Your task to perform on an android device: turn off notifications in google photos Image 0: 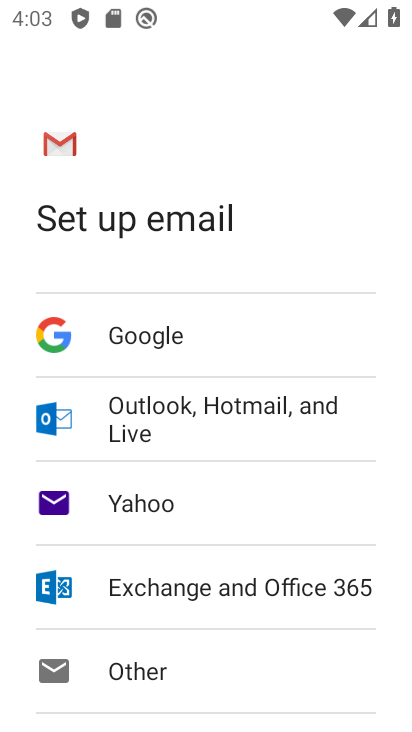
Step 0: press home button
Your task to perform on an android device: turn off notifications in google photos Image 1: 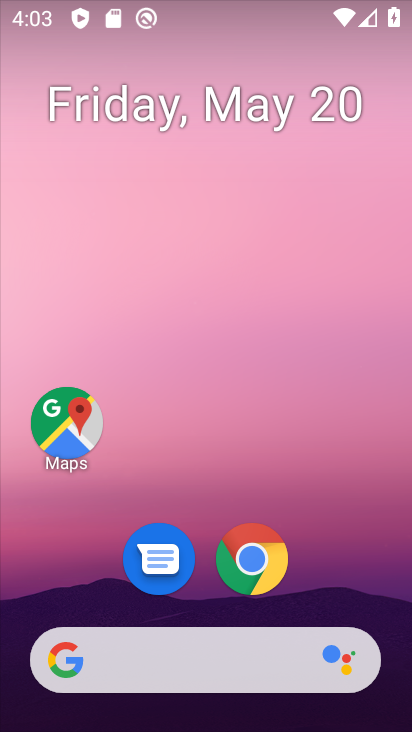
Step 1: drag from (120, 632) to (183, 148)
Your task to perform on an android device: turn off notifications in google photos Image 2: 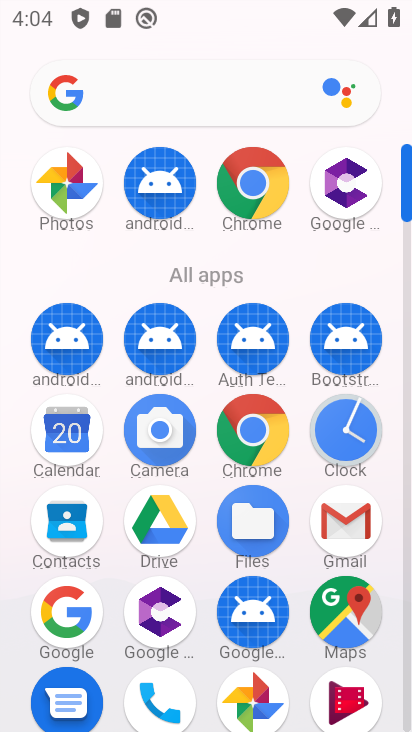
Step 2: click (259, 704)
Your task to perform on an android device: turn off notifications in google photos Image 3: 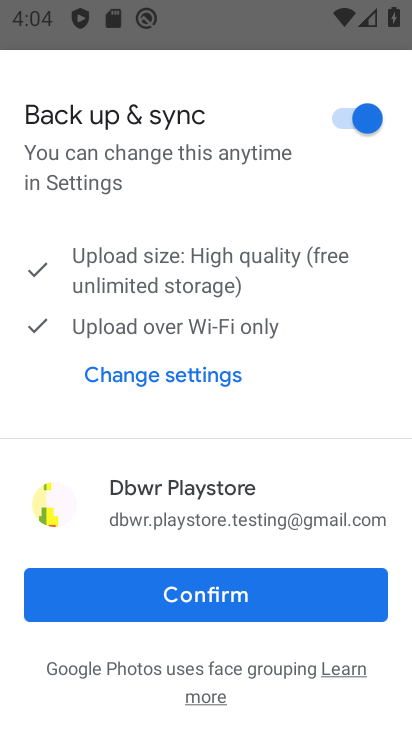
Step 3: click (228, 597)
Your task to perform on an android device: turn off notifications in google photos Image 4: 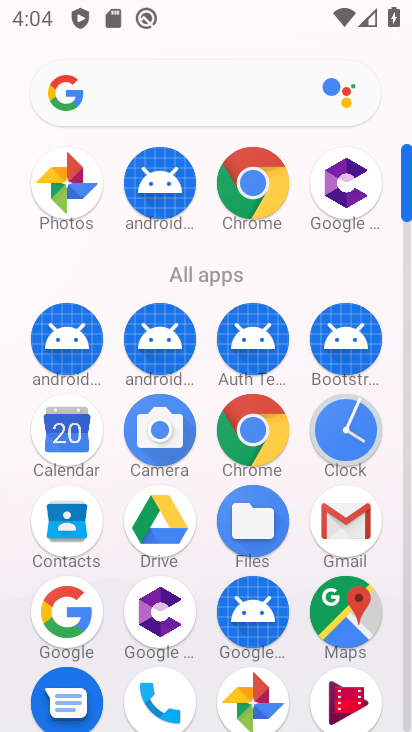
Step 4: click (68, 187)
Your task to perform on an android device: turn off notifications in google photos Image 5: 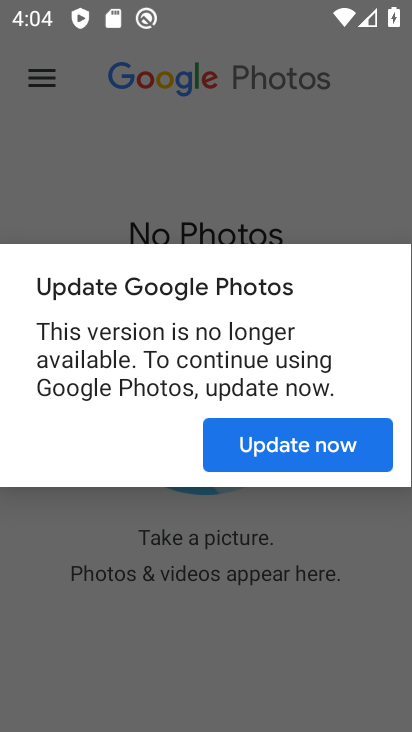
Step 5: click (292, 452)
Your task to perform on an android device: turn off notifications in google photos Image 6: 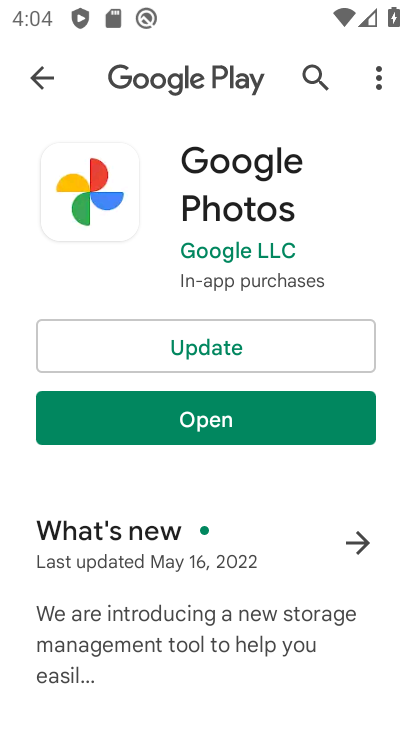
Step 6: press home button
Your task to perform on an android device: turn off notifications in google photos Image 7: 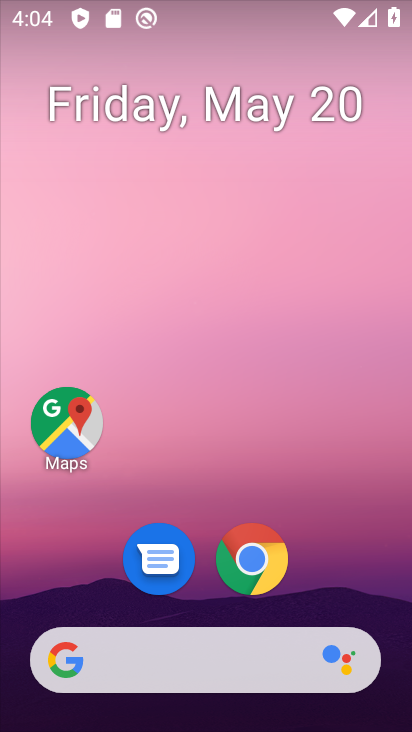
Step 7: drag from (193, 615) to (128, 241)
Your task to perform on an android device: turn off notifications in google photos Image 8: 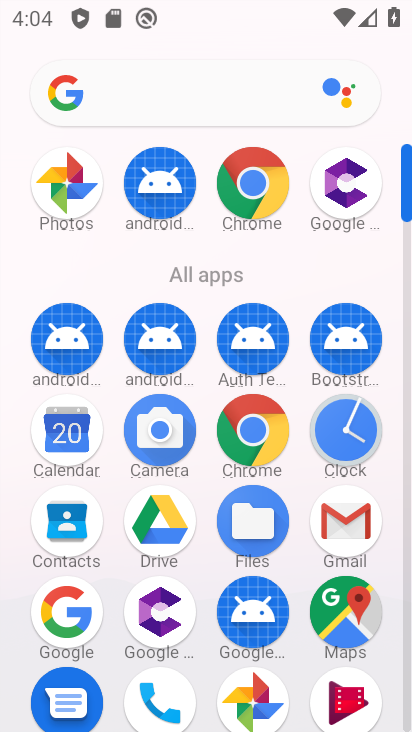
Step 8: click (241, 709)
Your task to perform on an android device: turn off notifications in google photos Image 9: 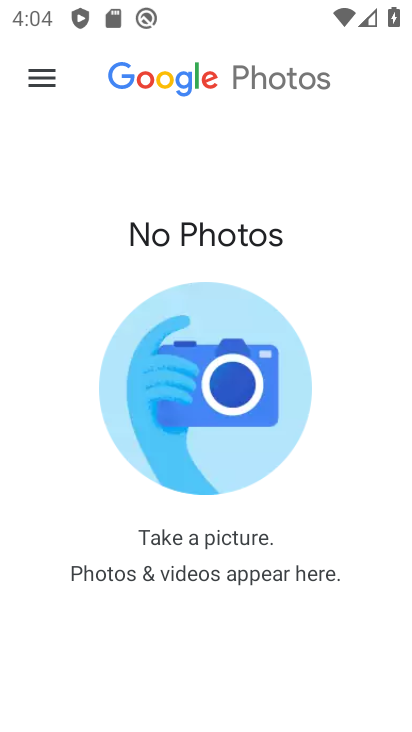
Step 9: click (33, 80)
Your task to perform on an android device: turn off notifications in google photos Image 10: 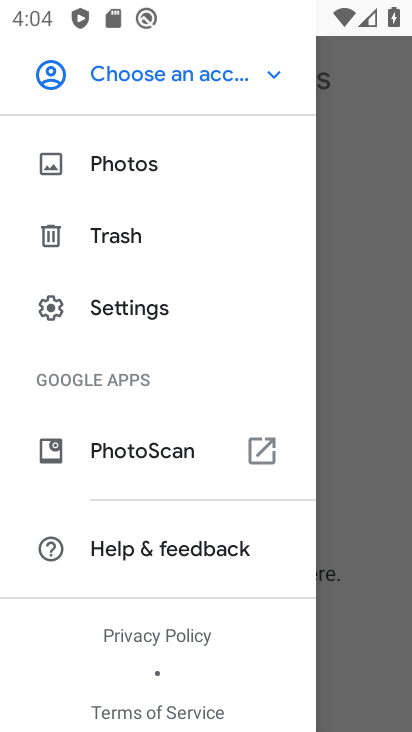
Step 10: click (136, 312)
Your task to perform on an android device: turn off notifications in google photos Image 11: 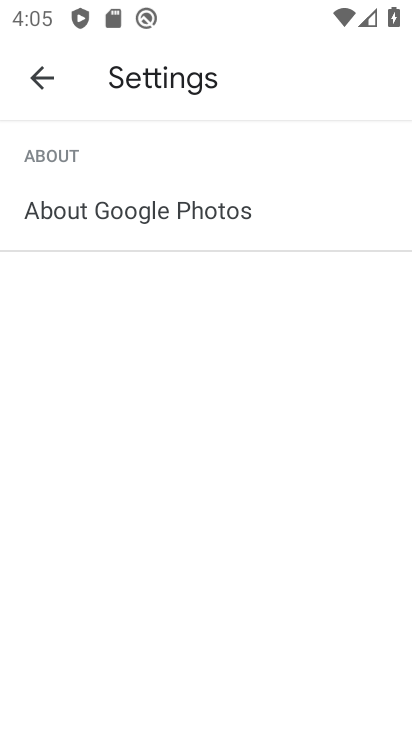
Step 11: click (48, 84)
Your task to perform on an android device: turn off notifications in google photos Image 12: 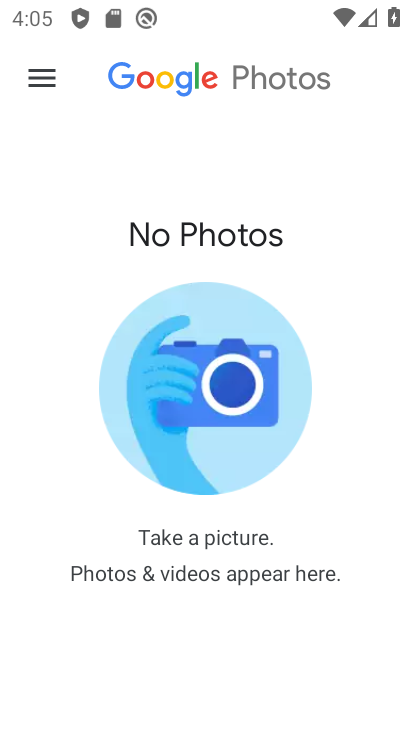
Step 12: click (44, 72)
Your task to perform on an android device: turn off notifications in google photos Image 13: 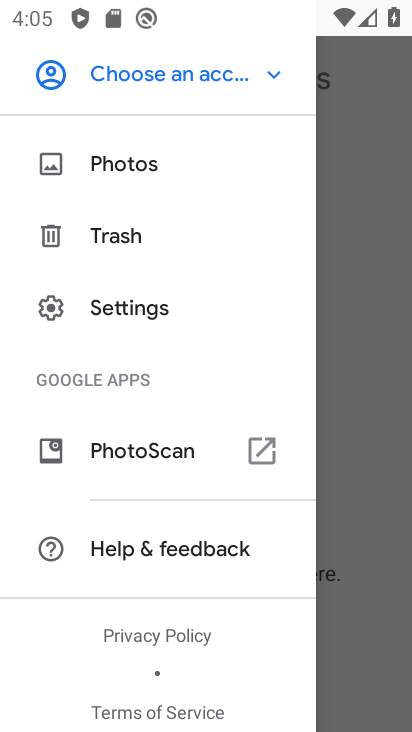
Step 13: click (145, 303)
Your task to perform on an android device: turn off notifications in google photos Image 14: 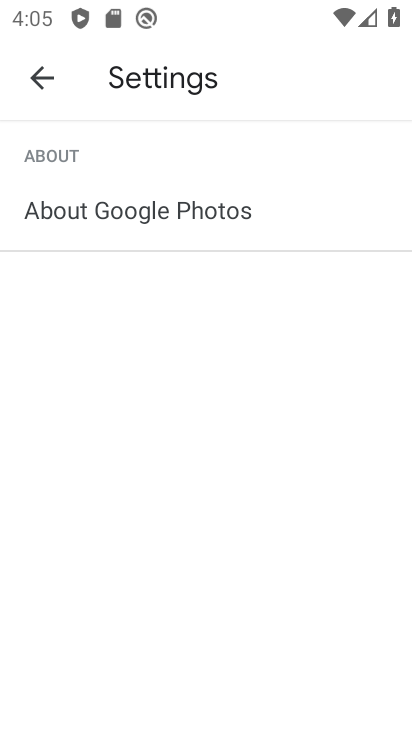
Step 14: click (140, 205)
Your task to perform on an android device: turn off notifications in google photos Image 15: 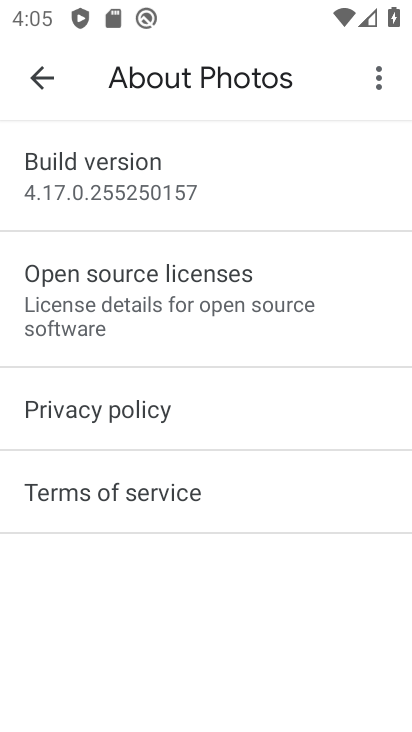
Step 15: task complete